Your task to perform on an android device: open a bookmark in the chrome app Image 0: 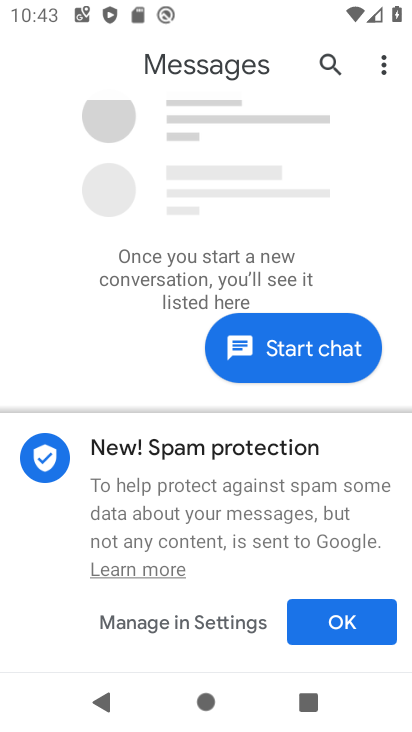
Step 0: press home button
Your task to perform on an android device: open a bookmark in the chrome app Image 1: 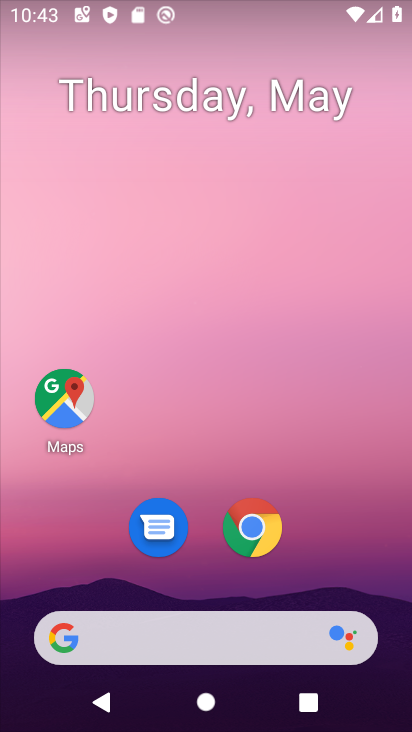
Step 1: click (249, 525)
Your task to perform on an android device: open a bookmark in the chrome app Image 2: 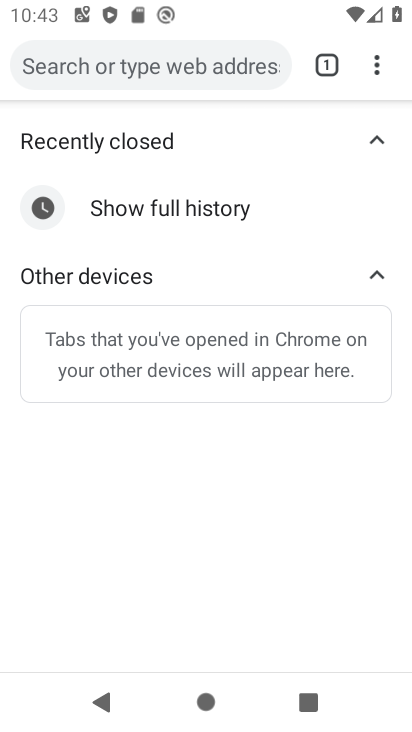
Step 2: task complete